Your task to perform on an android device: View the shopping cart on walmart. Image 0: 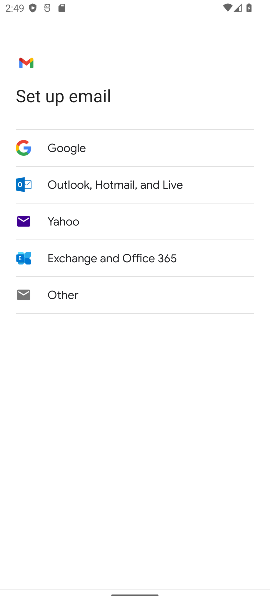
Step 0: press home button
Your task to perform on an android device: View the shopping cart on walmart. Image 1: 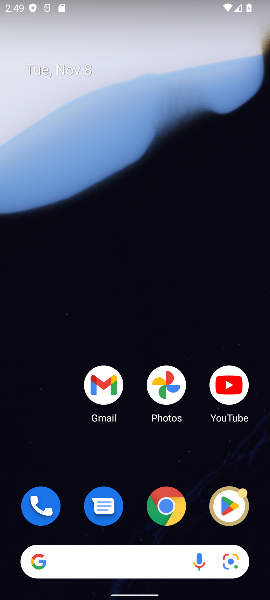
Step 1: drag from (135, 528) to (197, 0)
Your task to perform on an android device: View the shopping cart on walmart. Image 2: 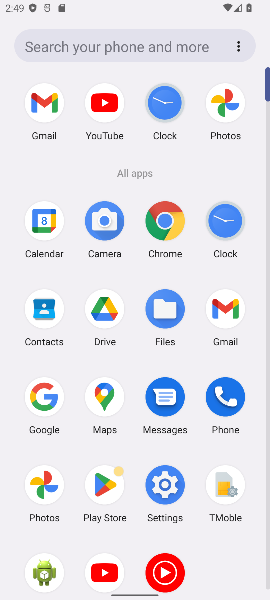
Step 2: click (41, 387)
Your task to perform on an android device: View the shopping cart on walmart. Image 3: 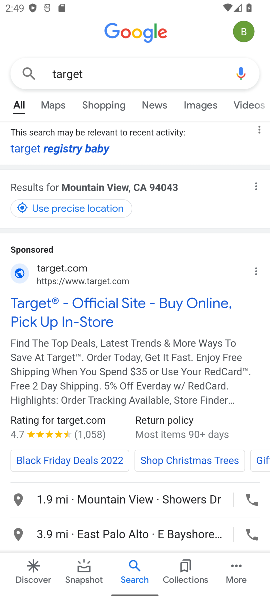
Step 3: click (164, 80)
Your task to perform on an android device: View the shopping cart on walmart. Image 4: 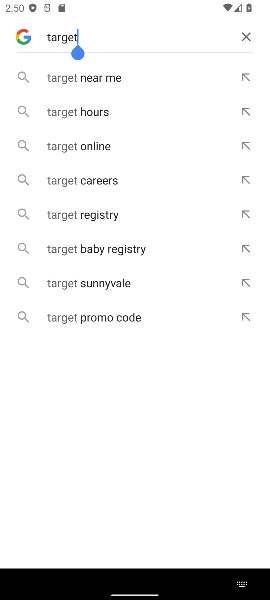
Step 4: click (250, 40)
Your task to perform on an android device: View the shopping cart on walmart. Image 5: 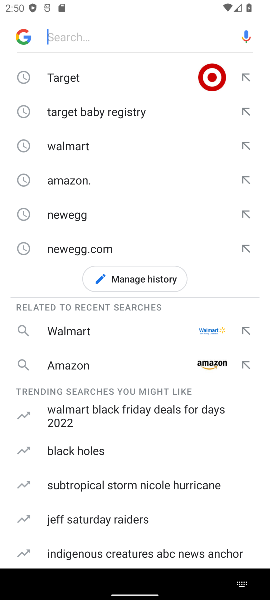
Step 5: click (130, 146)
Your task to perform on an android device: View the shopping cart on walmart. Image 6: 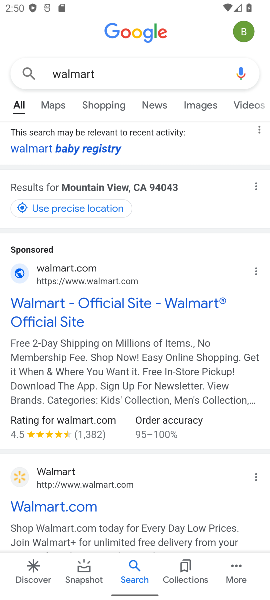
Step 6: click (68, 305)
Your task to perform on an android device: View the shopping cart on walmart. Image 7: 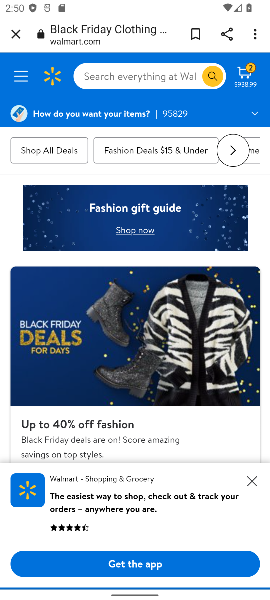
Step 7: click (247, 76)
Your task to perform on an android device: View the shopping cart on walmart. Image 8: 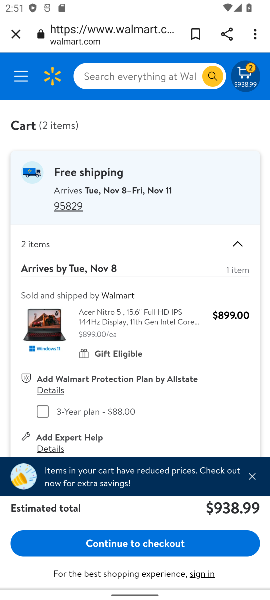
Step 8: task complete